Your task to perform on an android device: change your default location settings in chrome Image 0: 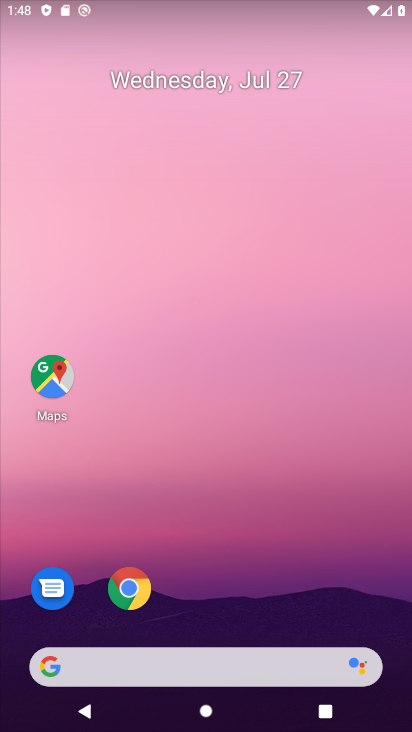
Step 0: drag from (220, 586) to (221, 105)
Your task to perform on an android device: change your default location settings in chrome Image 1: 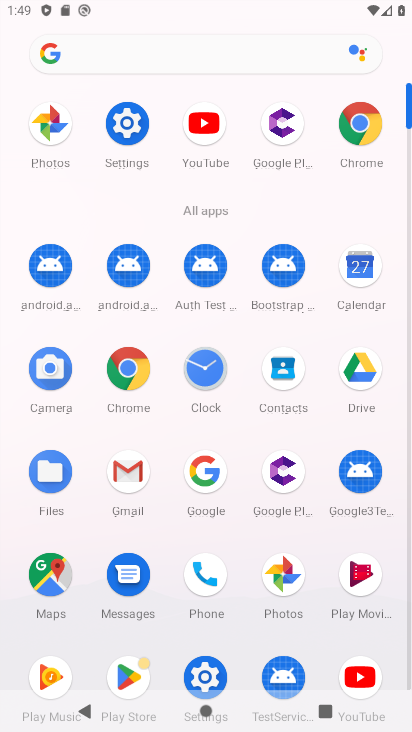
Step 1: click (359, 132)
Your task to perform on an android device: change your default location settings in chrome Image 2: 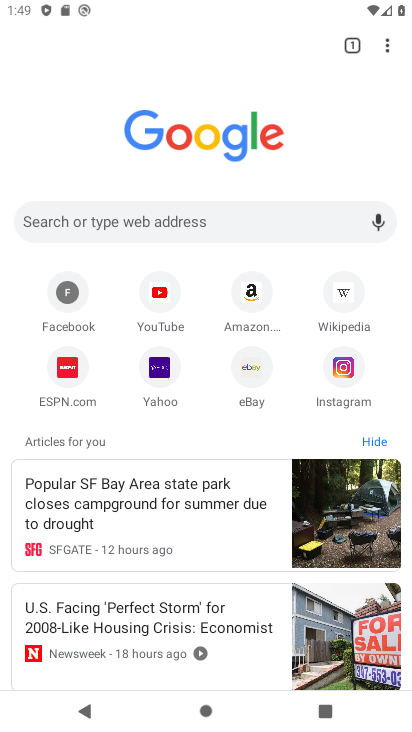
Step 2: click (387, 41)
Your task to perform on an android device: change your default location settings in chrome Image 3: 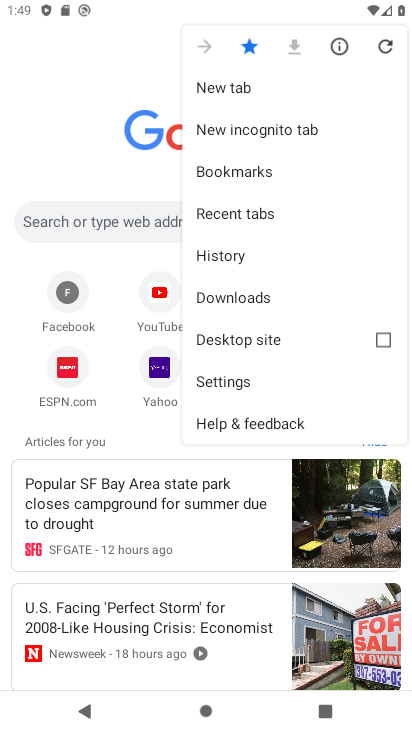
Step 3: click (230, 385)
Your task to perform on an android device: change your default location settings in chrome Image 4: 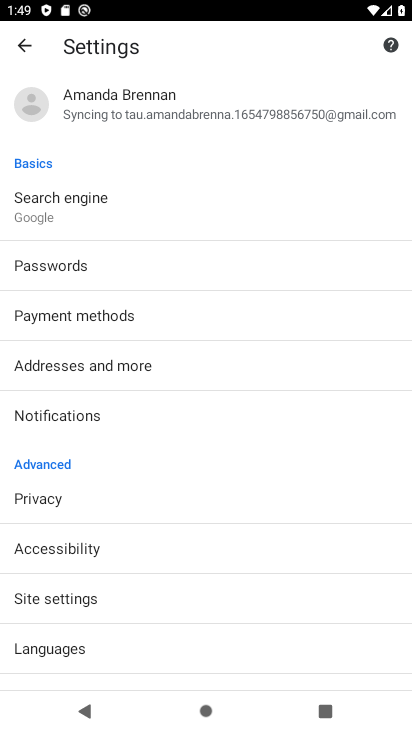
Step 4: click (91, 591)
Your task to perform on an android device: change your default location settings in chrome Image 5: 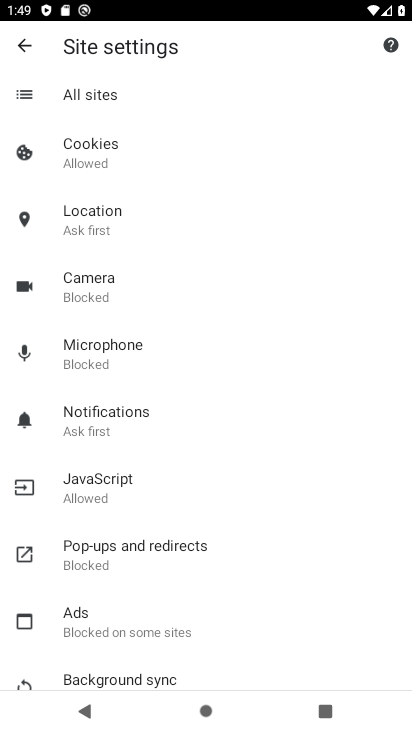
Step 5: click (98, 228)
Your task to perform on an android device: change your default location settings in chrome Image 6: 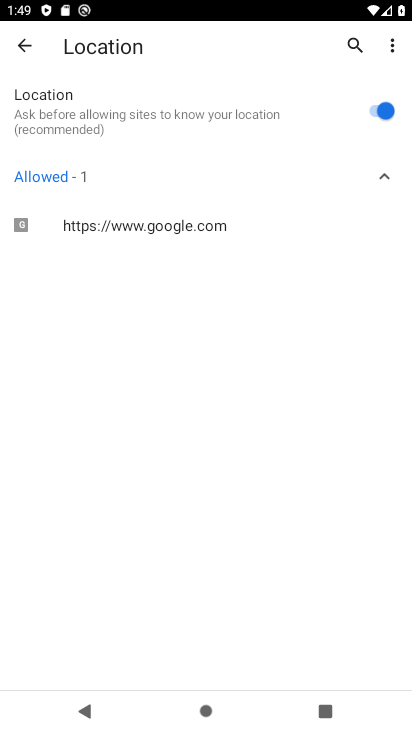
Step 6: click (377, 106)
Your task to perform on an android device: change your default location settings in chrome Image 7: 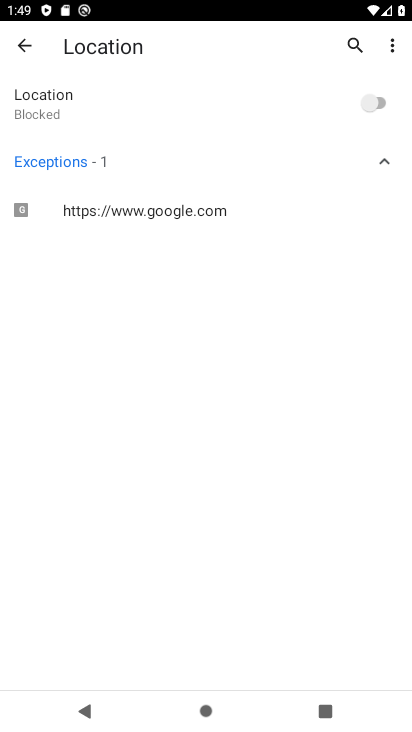
Step 7: task complete